Your task to perform on an android device: Open the phone app and click the voicemail tab. Image 0: 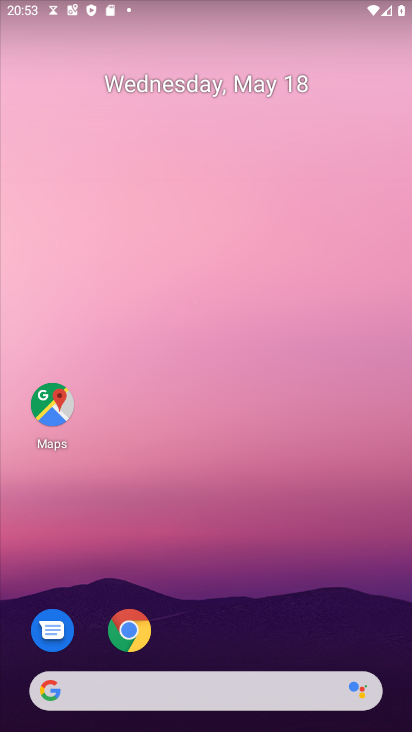
Step 0: press home button
Your task to perform on an android device: Open the phone app and click the voicemail tab. Image 1: 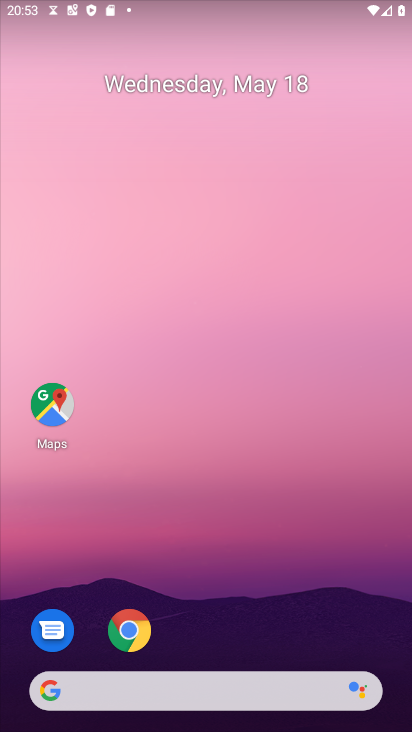
Step 1: drag from (130, 693) to (253, 310)
Your task to perform on an android device: Open the phone app and click the voicemail tab. Image 2: 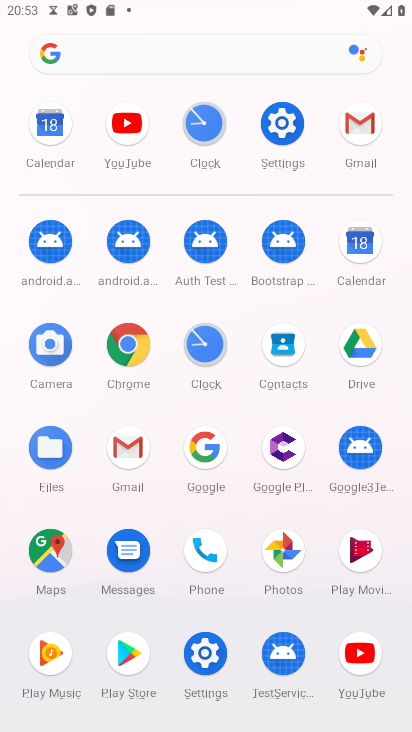
Step 2: click (209, 557)
Your task to perform on an android device: Open the phone app and click the voicemail tab. Image 3: 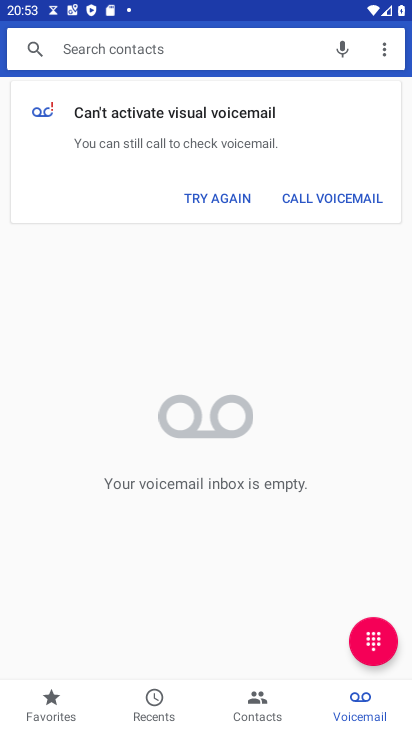
Step 3: click (363, 701)
Your task to perform on an android device: Open the phone app and click the voicemail tab. Image 4: 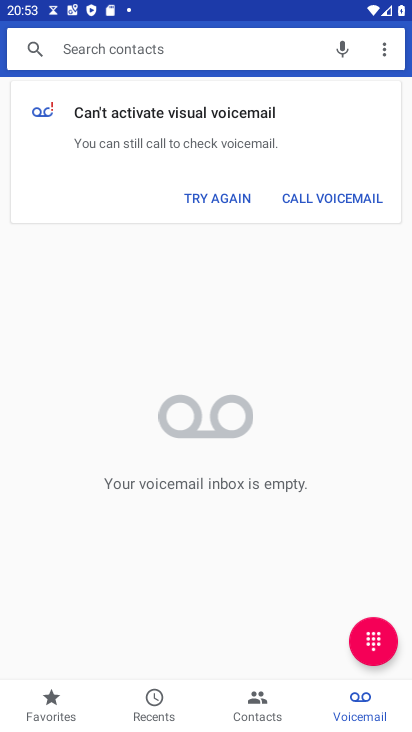
Step 4: task complete